Your task to perform on an android device: What is the recent news? Image 0: 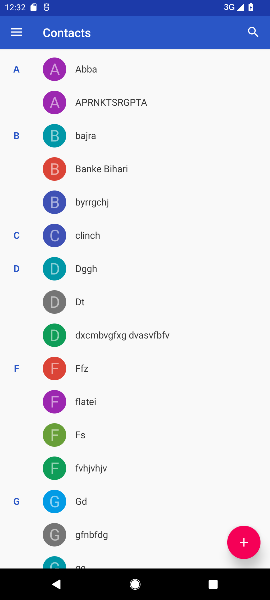
Step 0: press home button
Your task to perform on an android device: What is the recent news? Image 1: 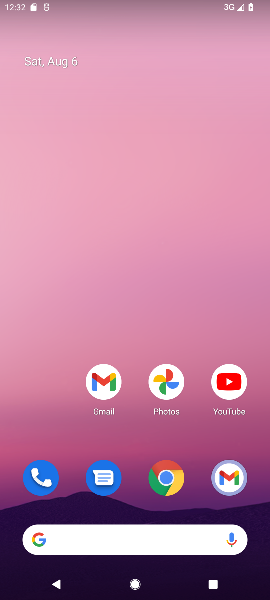
Step 1: drag from (120, 526) to (140, 227)
Your task to perform on an android device: What is the recent news? Image 2: 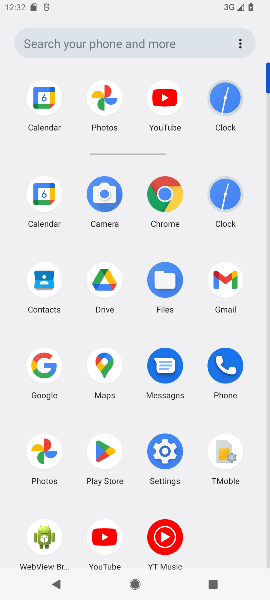
Step 2: click (44, 376)
Your task to perform on an android device: What is the recent news? Image 3: 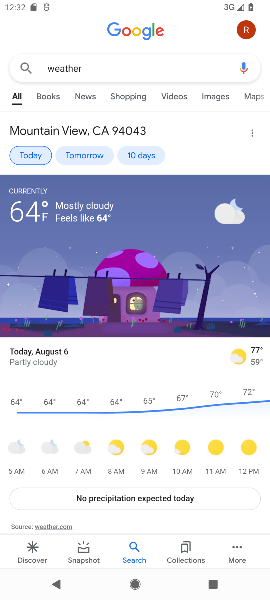
Step 3: click (92, 68)
Your task to perform on an android device: What is the recent news? Image 4: 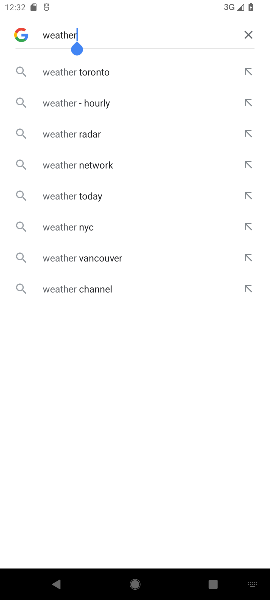
Step 4: click (250, 35)
Your task to perform on an android device: What is the recent news? Image 5: 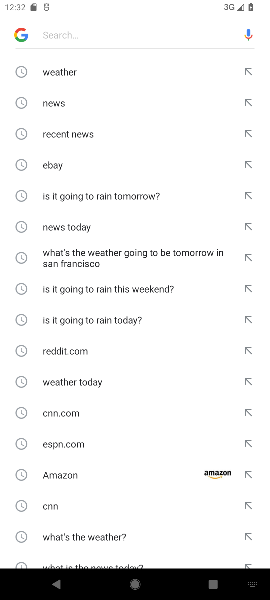
Step 5: click (81, 132)
Your task to perform on an android device: What is the recent news? Image 6: 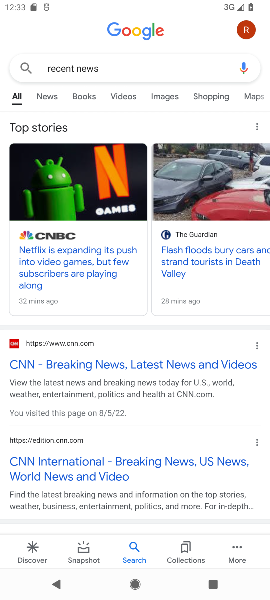
Step 6: task complete